Your task to perform on an android device: open device folders in google photos Image 0: 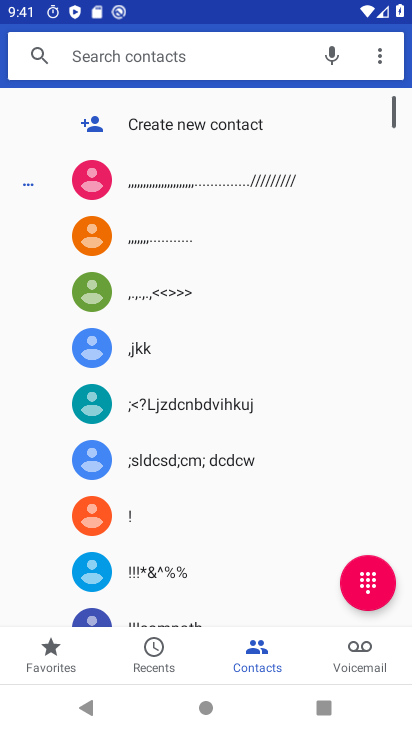
Step 0: press home button
Your task to perform on an android device: open device folders in google photos Image 1: 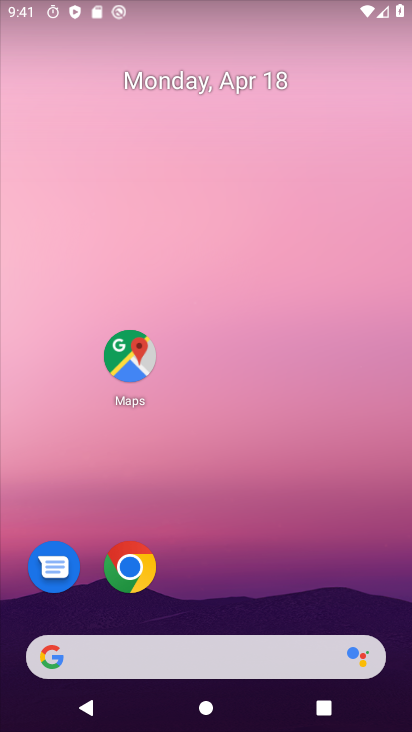
Step 1: drag from (256, 678) to (313, 354)
Your task to perform on an android device: open device folders in google photos Image 2: 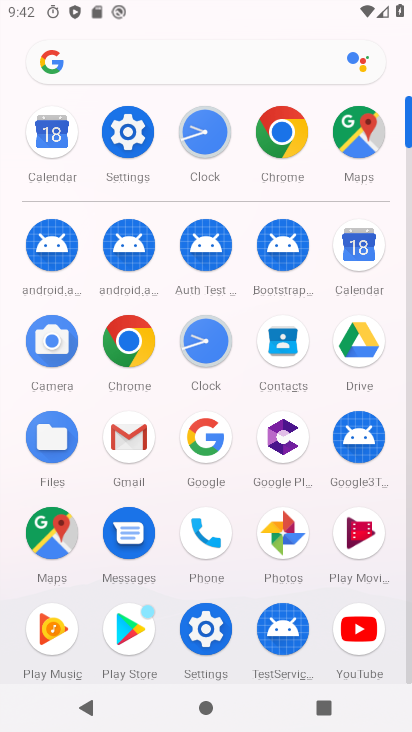
Step 2: click (291, 515)
Your task to perform on an android device: open device folders in google photos Image 3: 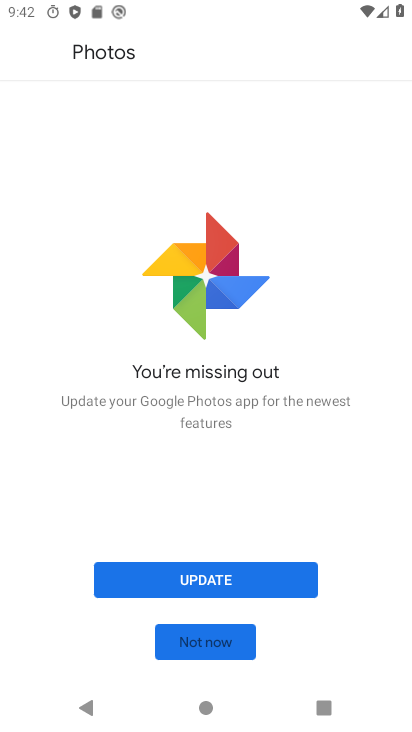
Step 3: click (173, 592)
Your task to perform on an android device: open device folders in google photos Image 4: 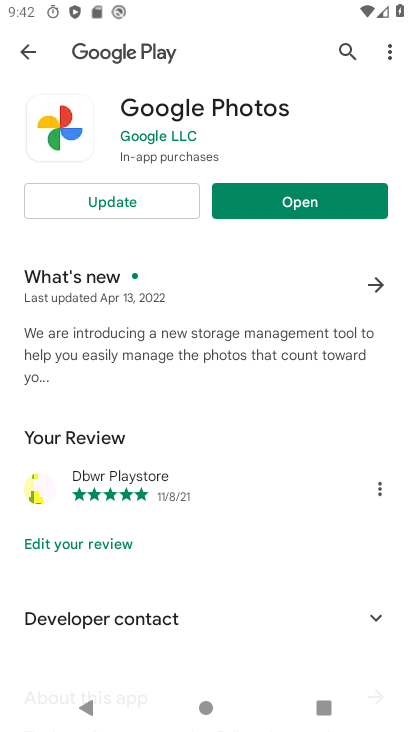
Step 4: click (310, 193)
Your task to perform on an android device: open device folders in google photos Image 5: 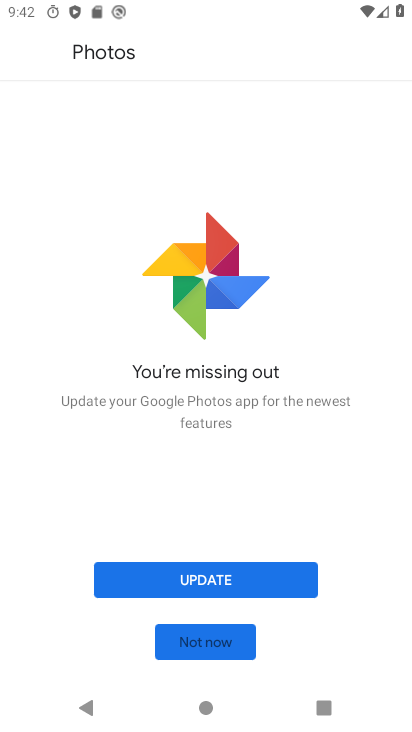
Step 5: click (188, 647)
Your task to perform on an android device: open device folders in google photos Image 6: 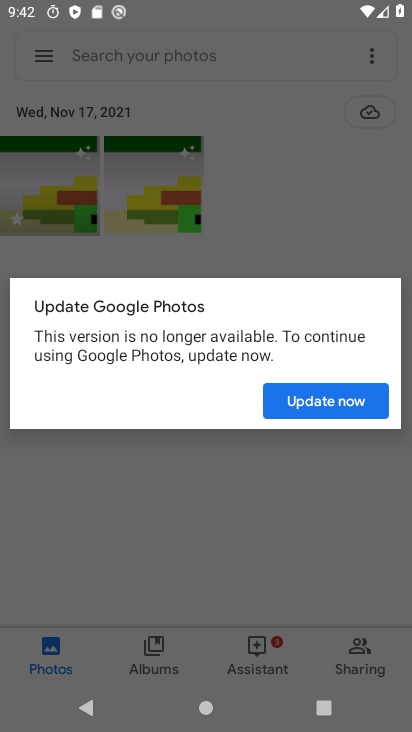
Step 6: click (380, 395)
Your task to perform on an android device: open device folders in google photos Image 7: 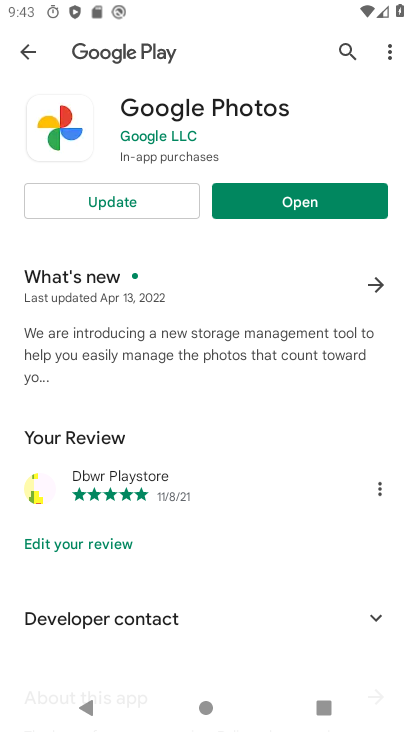
Step 7: click (317, 200)
Your task to perform on an android device: open device folders in google photos Image 8: 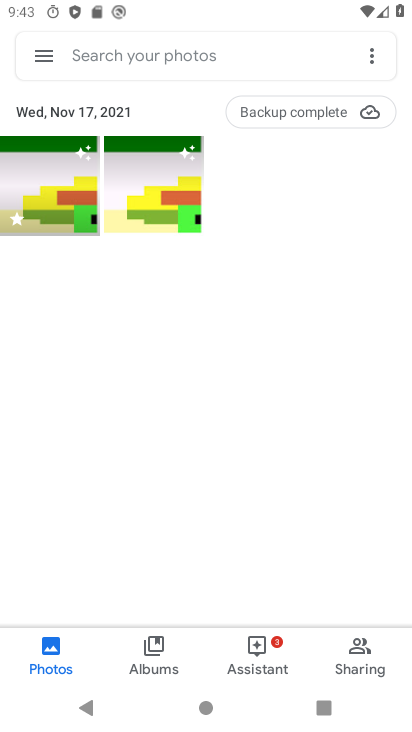
Step 8: click (38, 57)
Your task to perform on an android device: open device folders in google photos Image 9: 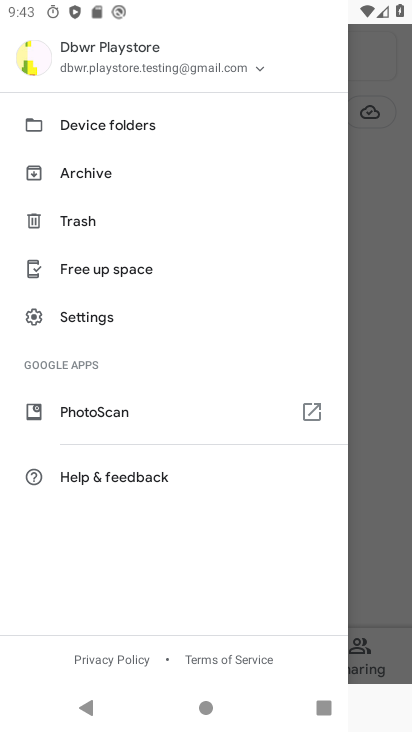
Step 9: click (111, 120)
Your task to perform on an android device: open device folders in google photos Image 10: 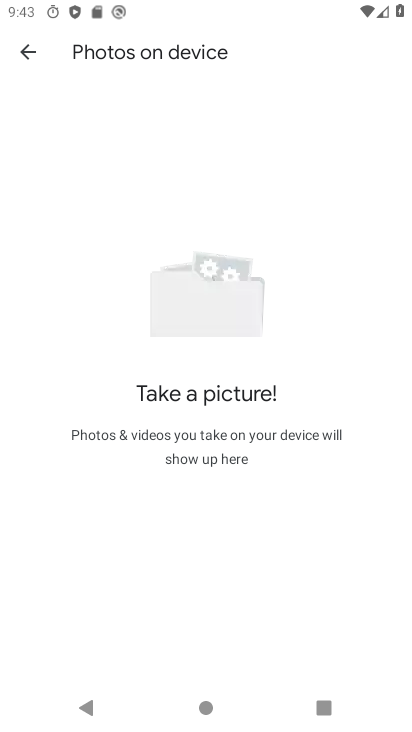
Step 10: task complete